Your task to perform on an android device: turn off javascript in the chrome app Image 0: 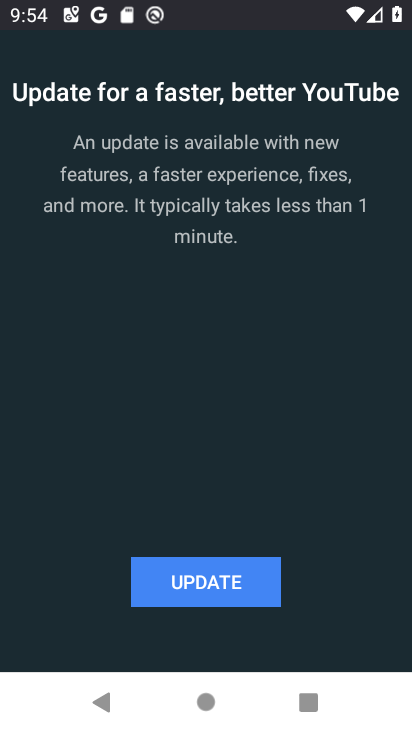
Step 0: press home button
Your task to perform on an android device: turn off javascript in the chrome app Image 1: 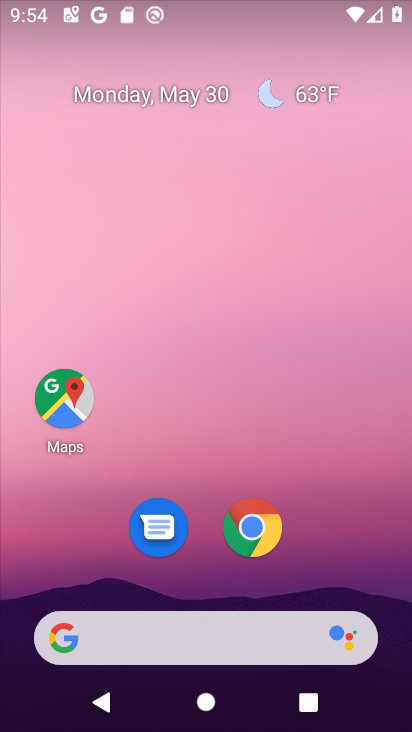
Step 1: drag from (326, 580) to (355, 165)
Your task to perform on an android device: turn off javascript in the chrome app Image 2: 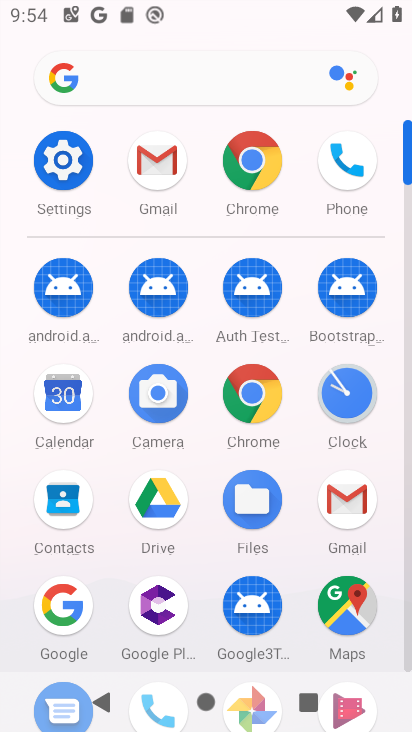
Step 2: click (254, 402)
Your task to perform on an android device: turn off javascript in the chrome app Image 3: 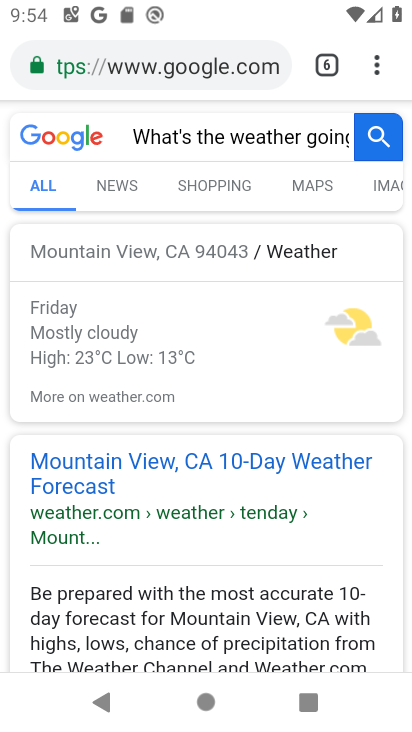
Step 3: click (376, 68)
Your task to perform on an android device: turn off javascript in the chrome app Image 4: 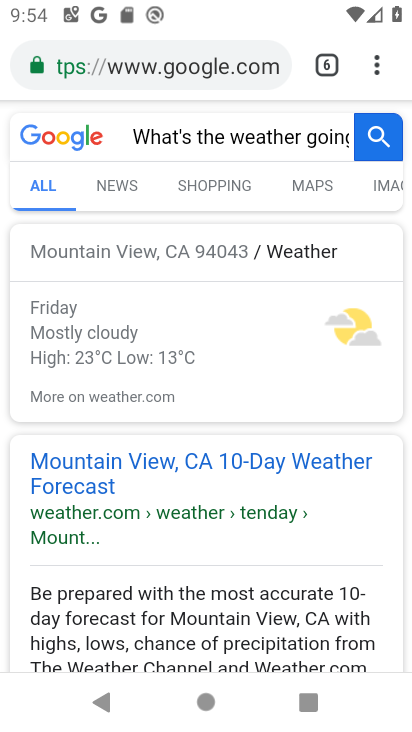
Step 4: click (377, 67)
Your task to perform on an android device: turn off javascript in the chrome app Image 5: 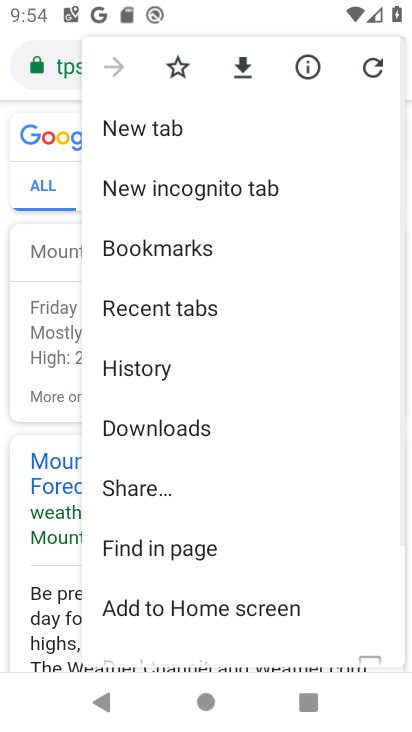
Step 5: drag from (205, 566) to (252, 234)
Your task to perform on an android device: turn off javascript in the chrome app Image 6: 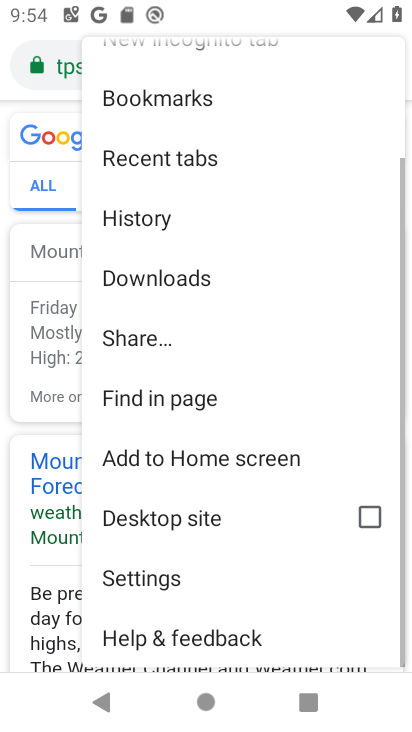
Step 6: click (191, 584)
Your task to perform on an android device: turn off javascript in the chrome app Image 7: 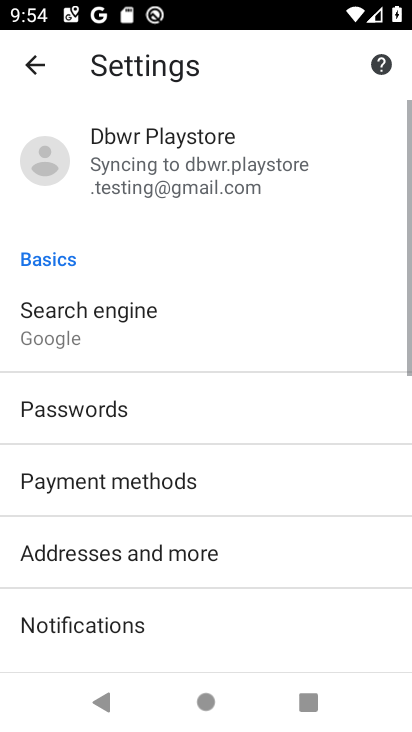
Step 7: drag from (209, 570) to (193, 252)
Your task to perform on an android device: turn off javascript in the chrome app Image 8: 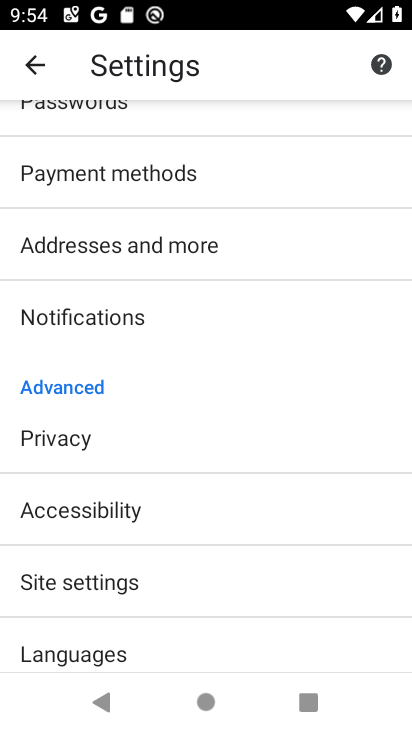
Step 8: drag from (135, 620) to (175, 374)
Your task to perform on an android device: turn off javascript in the chrome app Image 9: 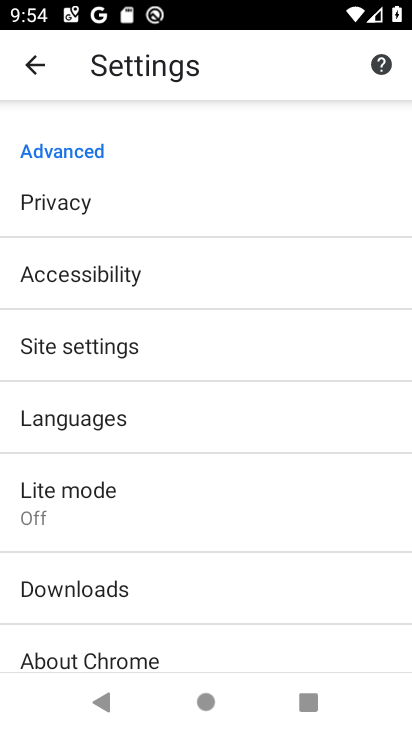
Step 9: click (115, 343)
Your task to perform on an android device: turn off javascript in the chrome app Image 10: 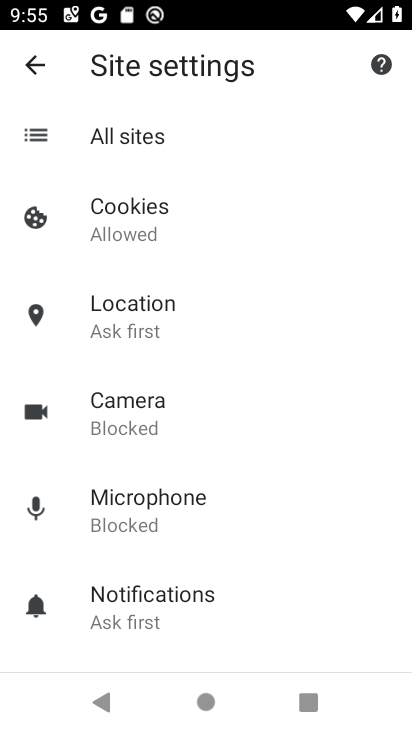
Step 10: drag from (178, 565) to (180, 229)
Your task to perform on an android device: turn off javascript in the chrome app Image 11: 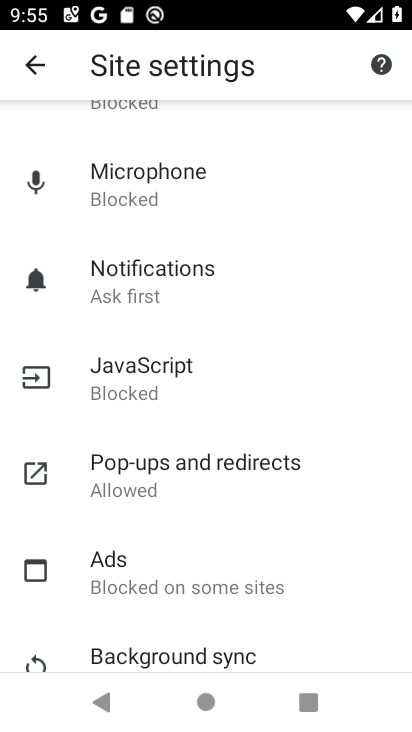
Step 11: click (139, 373)
Your task to perform on an android device: turn off javascript in the chrome app Image 12: 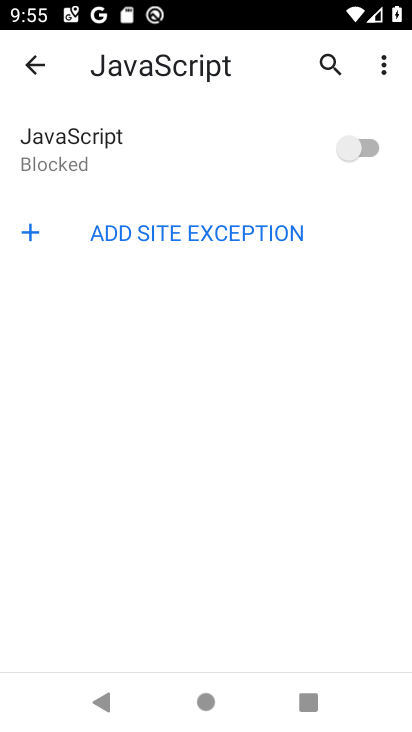
Step 12: task complete